Your task to perform on an android device: toggle priority inbox in the gmail app Image 0: 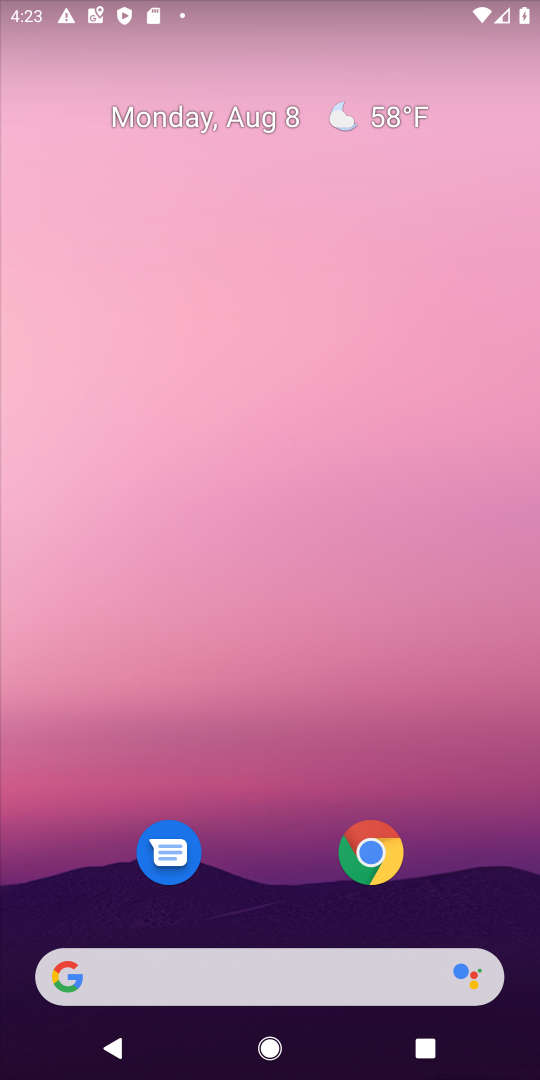
Step 0: drag from (233, 575) to (254, 106)
Your task to perform on an android device: toggle priority inbox in the gmail app Image 1: 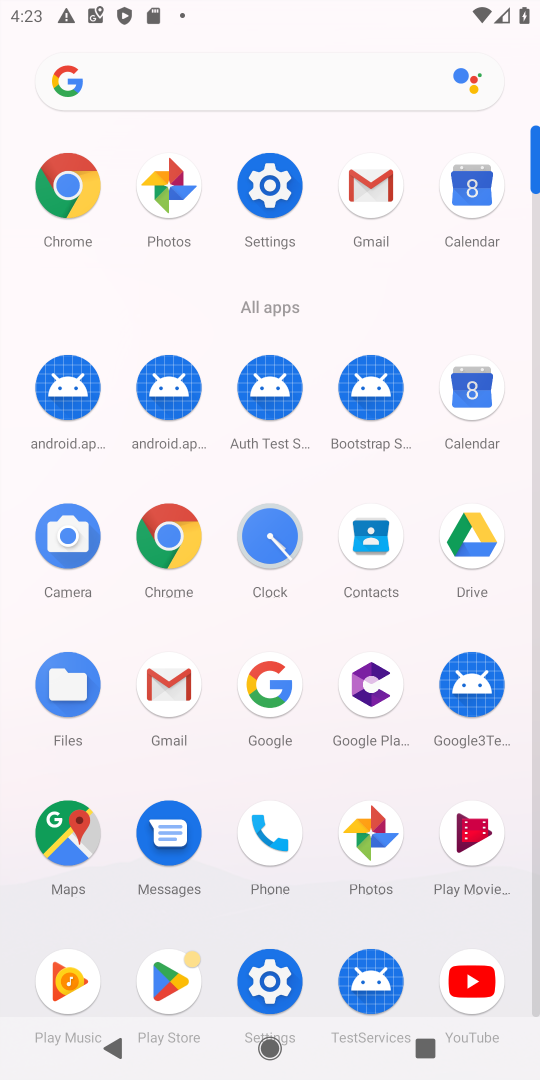
Step 1: click (166, 672)
Your task to perform on an android device: toggle priority inbox in the gmail app Image 2: 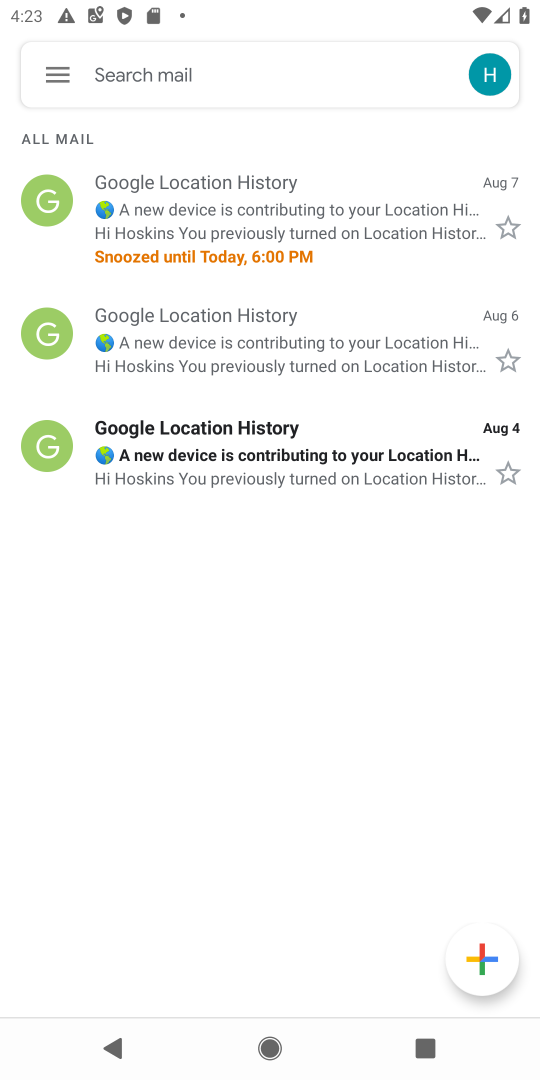
Step 2: click (59, 71)
Your task to perform on an android device: toggle priority inbox in the gmail app Image 3: 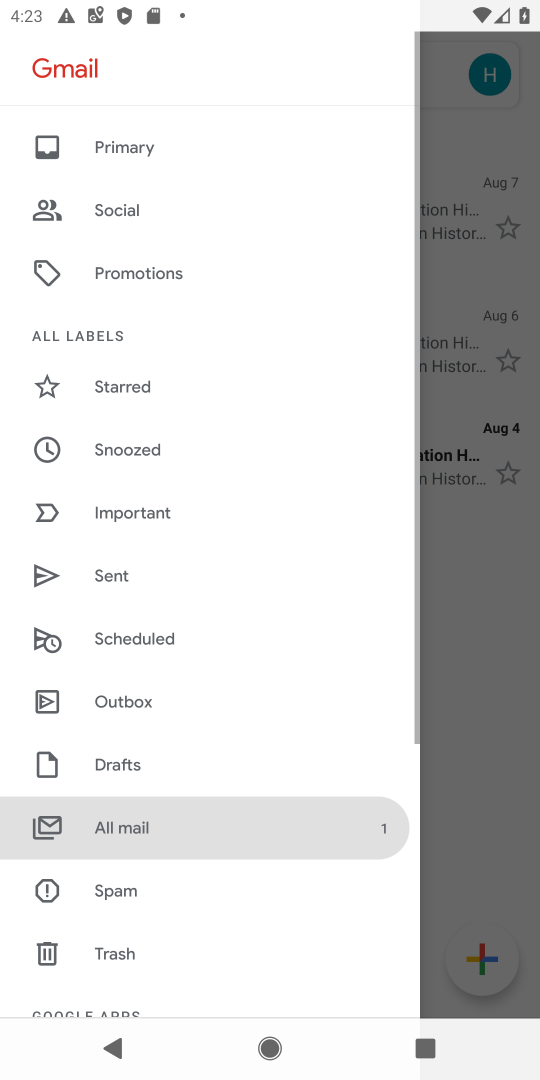
Step 3: drag from (141, 957) to (238, 333)
Your task to perform on an android device: toggle priority inbox in the gmail app Image 4: 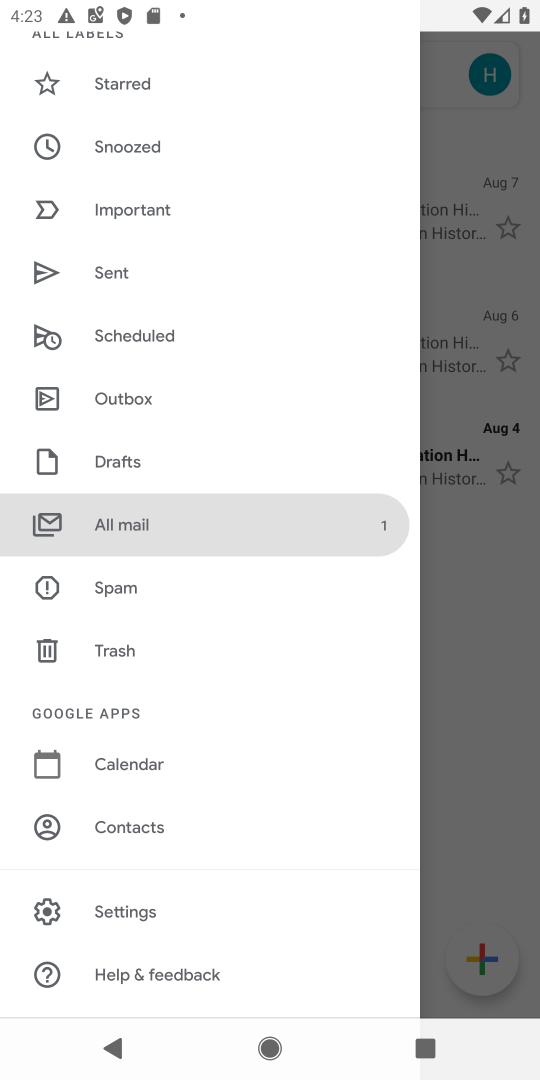
Step 4: click (136, 907)
Your task to perform on an android device: toggle priority inbox in the gmail app Image 5: 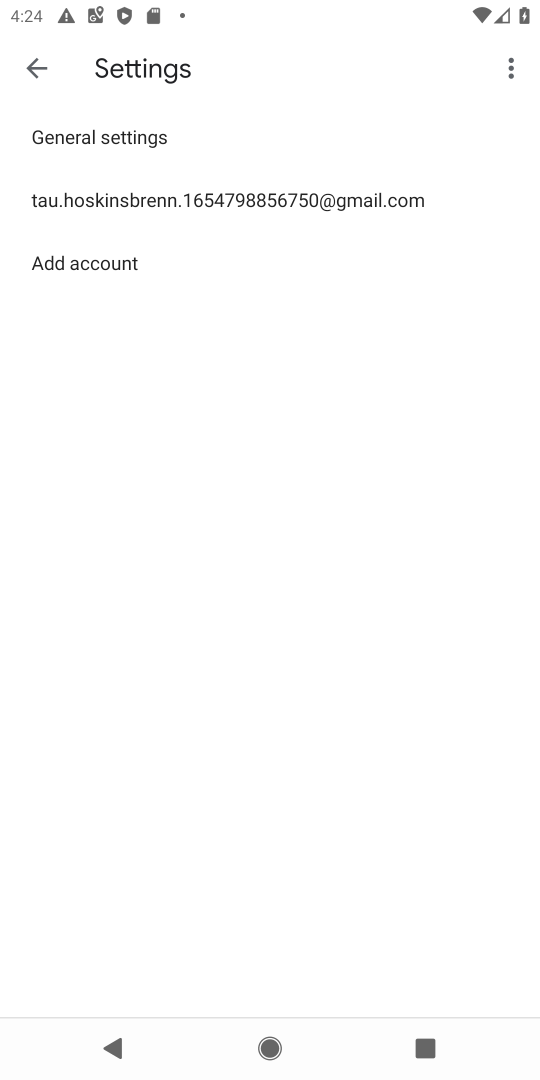
Step 5: click (240, 214)
Your task to perform on an android device: toggle priority inbox in the gmail app Image 6: 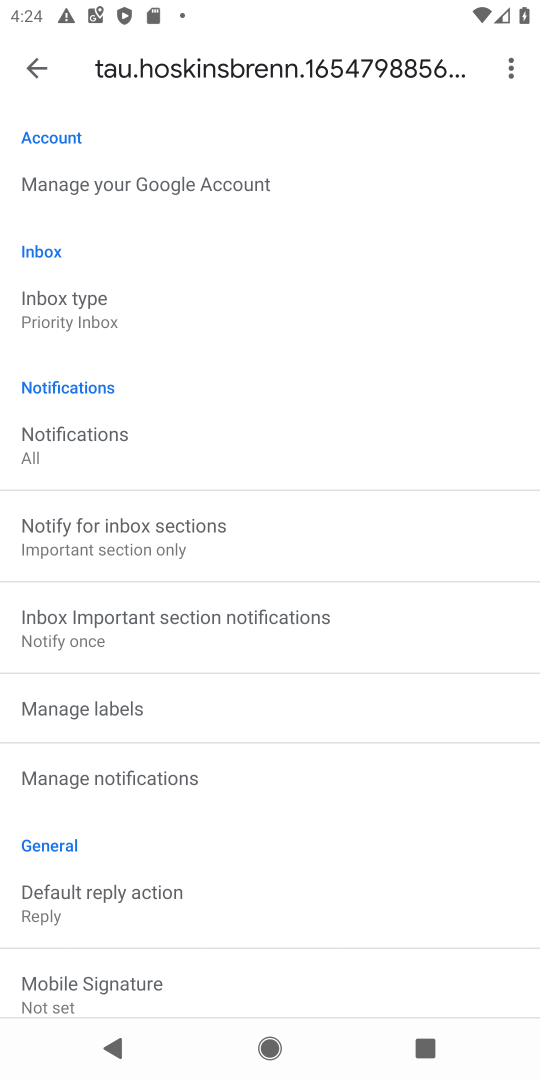
Step 6: click (63, 308)
Your task to perform on an android device: toggle priority inbox in the gmail app Image 7: 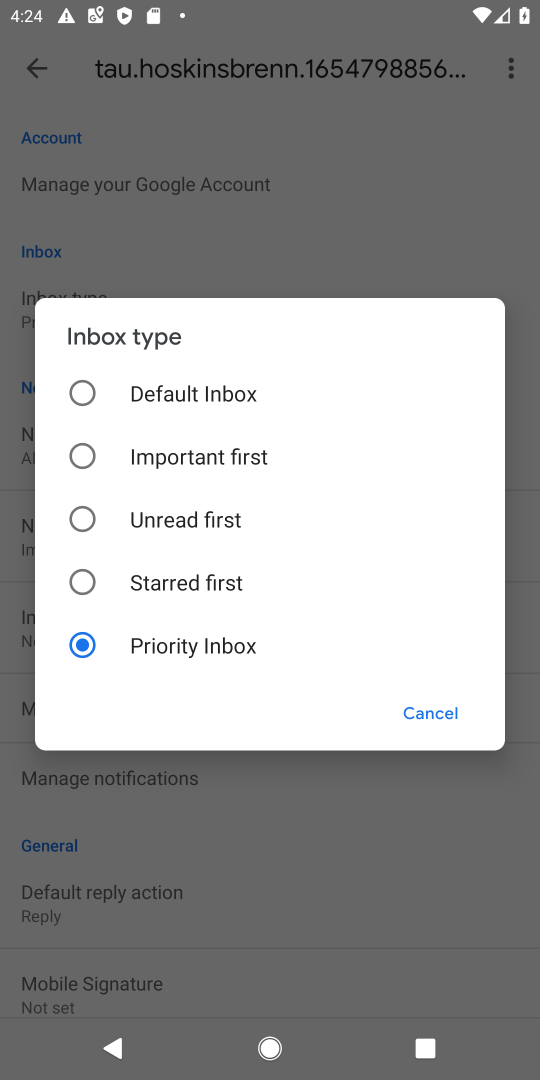
Step 7: click (177, 400)
Your task to perform on an android device: toggle priority inbox in the gmail app Image 8: 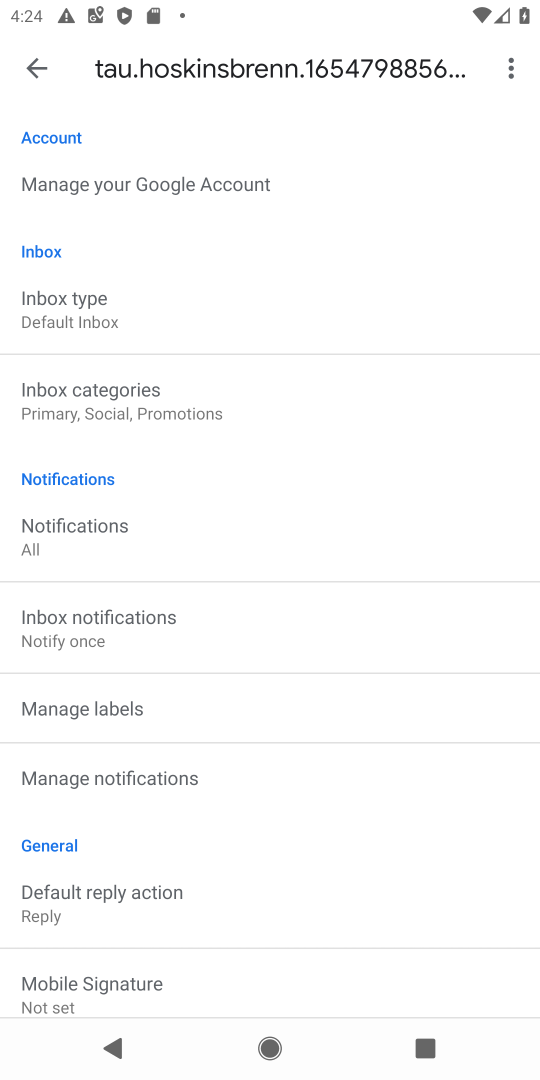
Step 8: task complete